Your task to perform on an android device: clear all cookies in the chrome app Image 0: 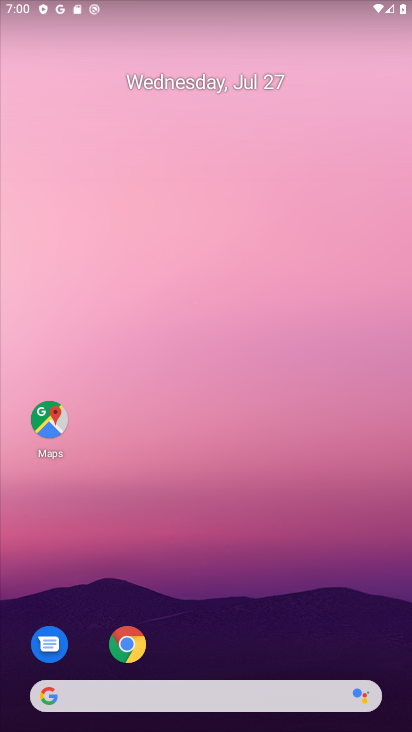
Step 0: drag from (253, 604) to (327, 81)
Your task to perform on an android device: clear all cookies in the chrome app Image 1: 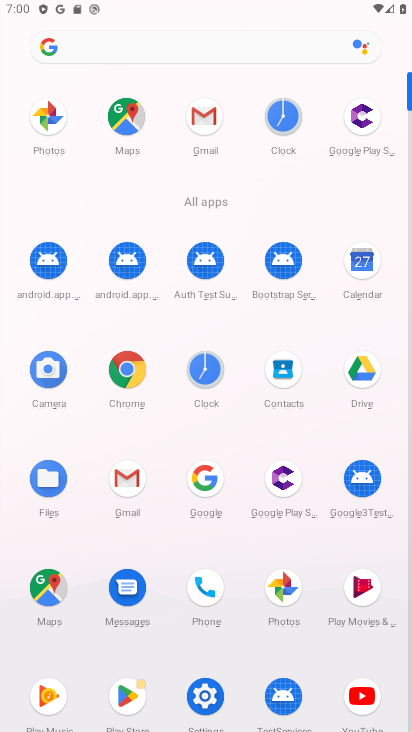
Step 1: click (123, 377)
Your task to perform on an android device: clear all cookies in the chrome app Image 2: 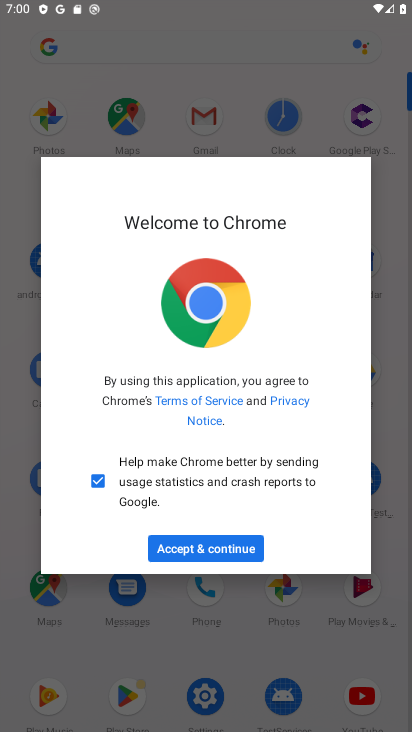
Step 2: click (235, 551)
Your task to perform on an android device: clear all cookies in the chrome app Image 3: 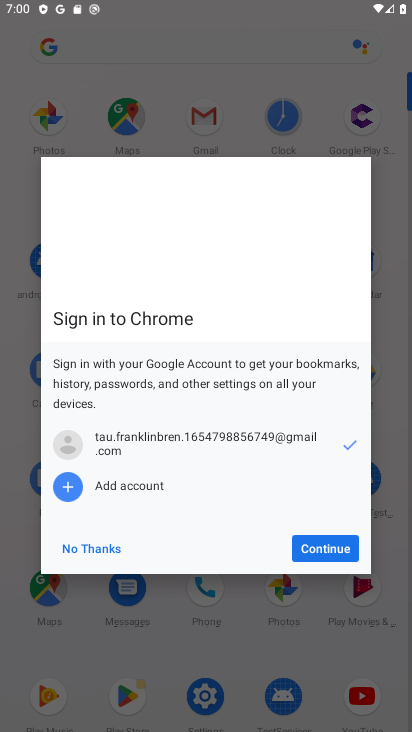
Step 3: click (317, 540)
Your task to perform on an android device: clear all cookies in the chrome app Image 4: 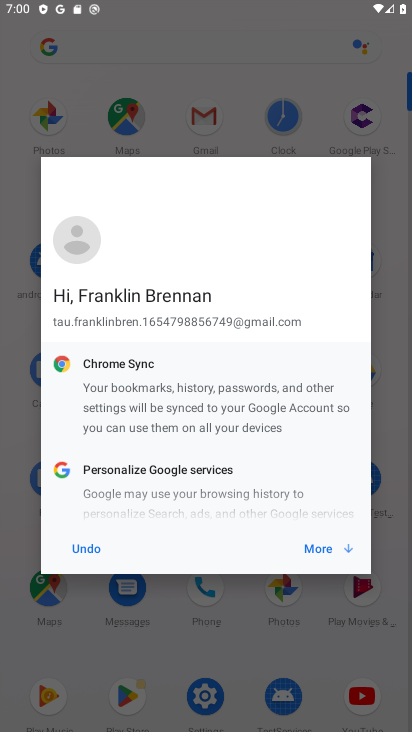
Step 4: click (315, 551)
Your task to perform on an android device: clear all cookies in the chrome app Image 5: 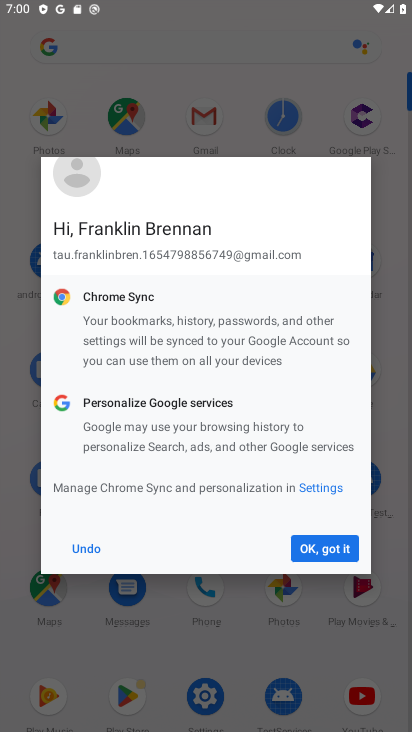
Step 5: click (314, 552)
Your task to perform on an android device: clear all cookies in the chrome app Image 6: 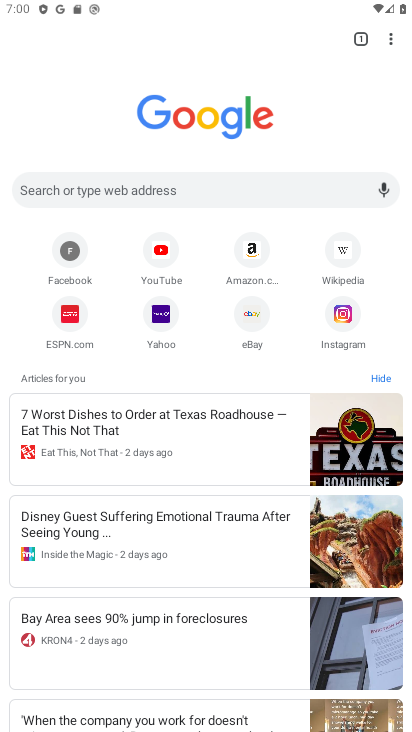
Step 6: click (388, 35)
Your task to perform on an android device: clear all cookies in the chrome app Image 7: 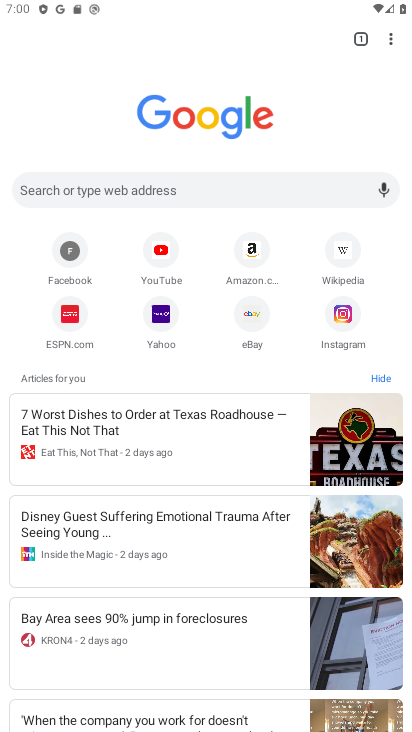
Step 7: click (393, 38)
Your task to perform on an android device: clear all cookies in the chrome app Image 8: 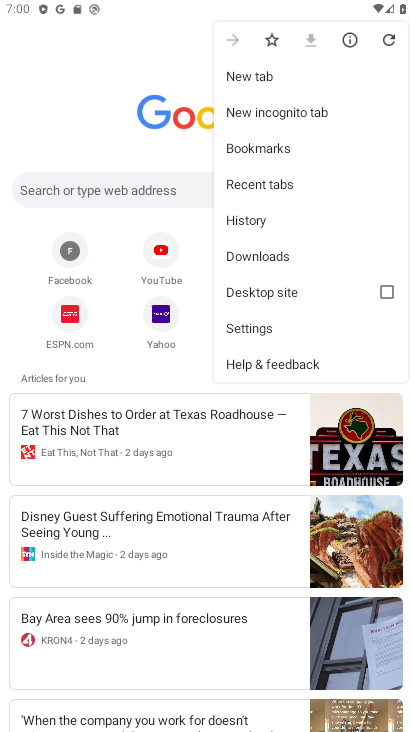
Step 8: click (259, 219)
Your task to perform on an android device: clear all cookies in the chrome app Image 9: 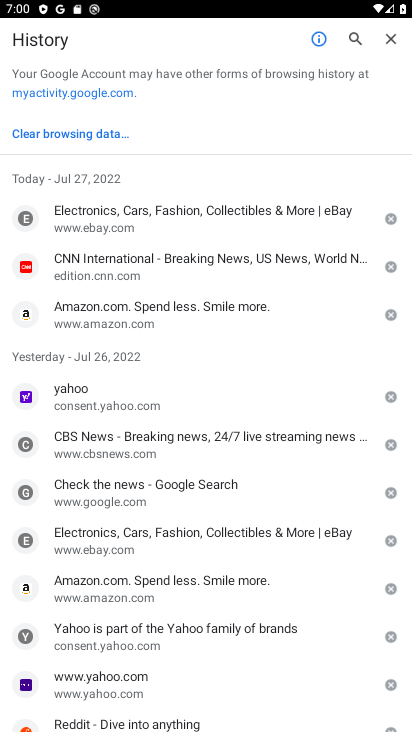
Step 9: click (90, 132)
Your task to perform on an android device: clear all cookies in the chrome app Image 10: 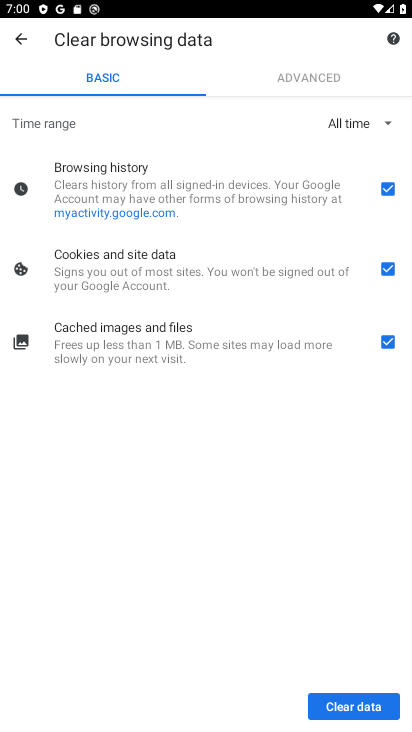
Step 10: click (385, 187)
Your task to perform on an android device: clear all cookies in the chrome app Image 11: 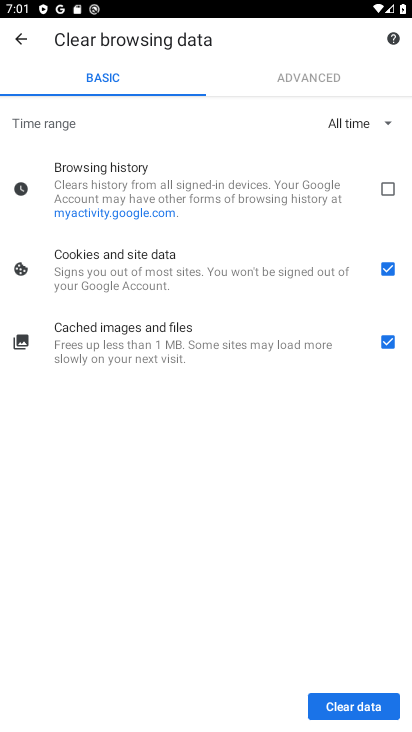
Step 11: click (385, 343)
Your task to perform on an android device: clear all cookies in the chrome app Image 12: 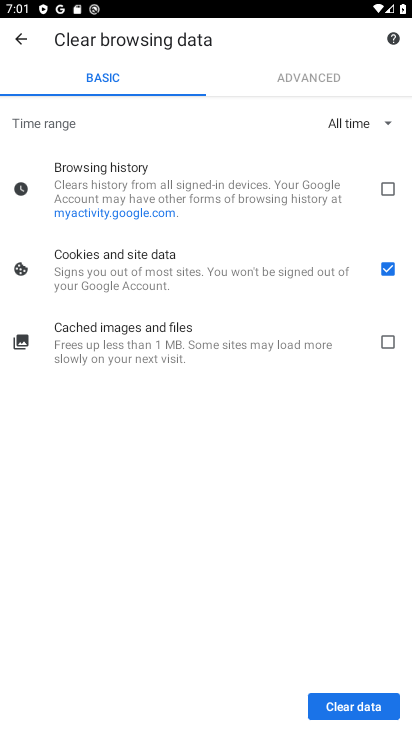
Step 12: click (343, 710)
Your task to perform on an android device: clear all cookies in the chrome app Image 13: 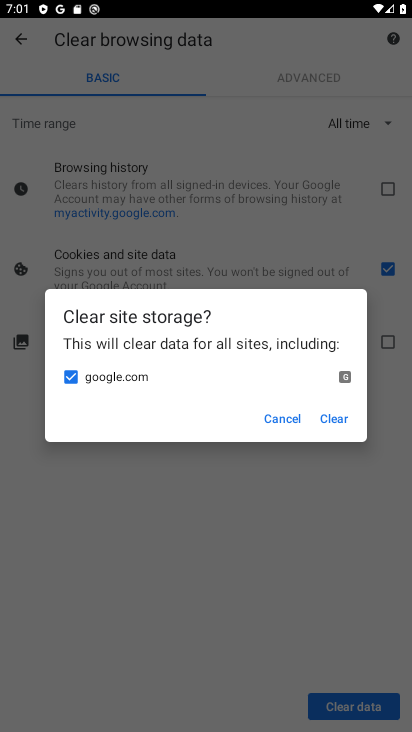
Step 13: click (333, 413)
Your task to perform on an android device: clear all cookies in the chrome app Image 14: 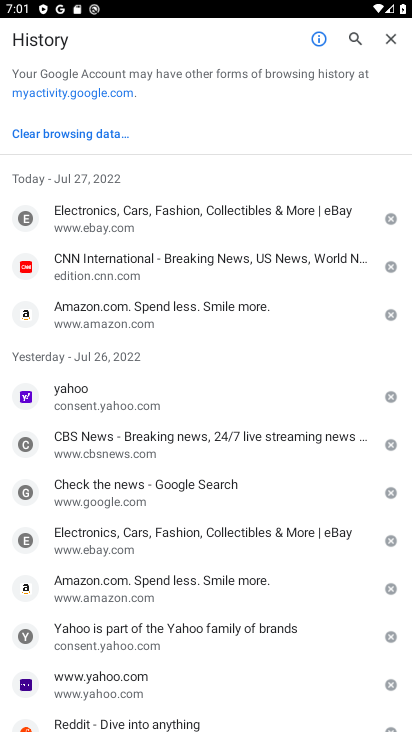
Step 14: task complete